Your task to perform on an android device: Go to notification settings Image 0: 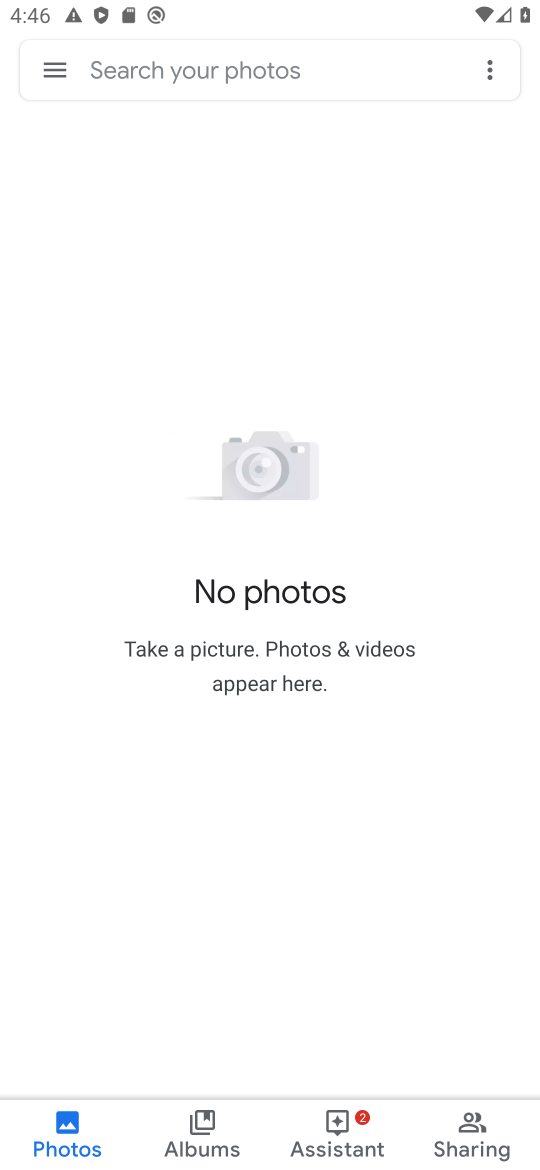
Step 0: press home button
Your task to perform on an android device: Go to notification settings Image 1: 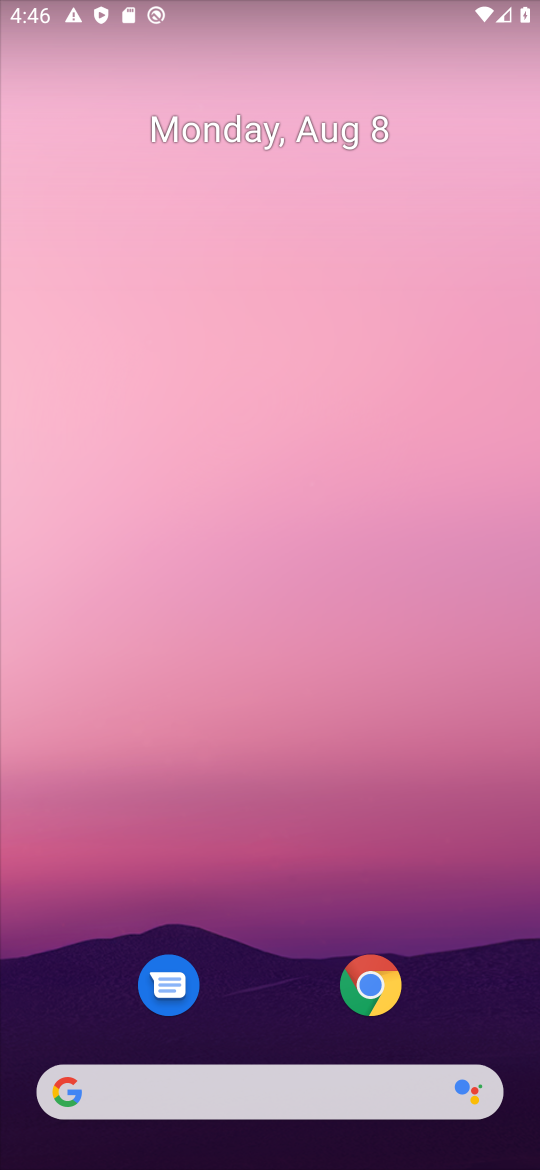
Step 1: drag from (279, 861) to (286, 163)
Your task to perform on an android device: Go to notification settings Image 2: 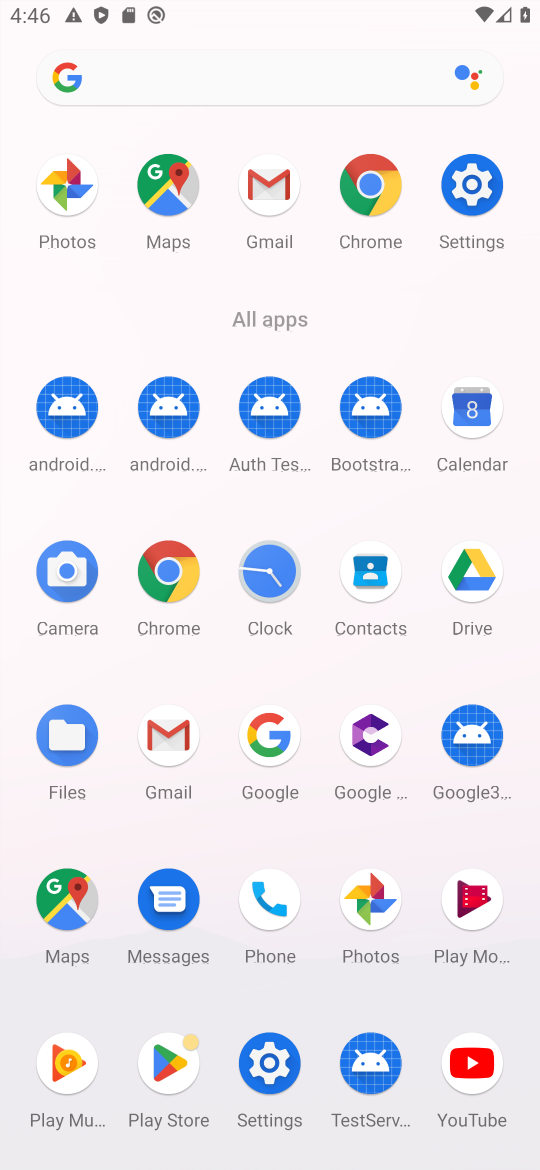
Step 2: click (482, 192)
Your task to perform on an android device: Go to notification settings Image 3: 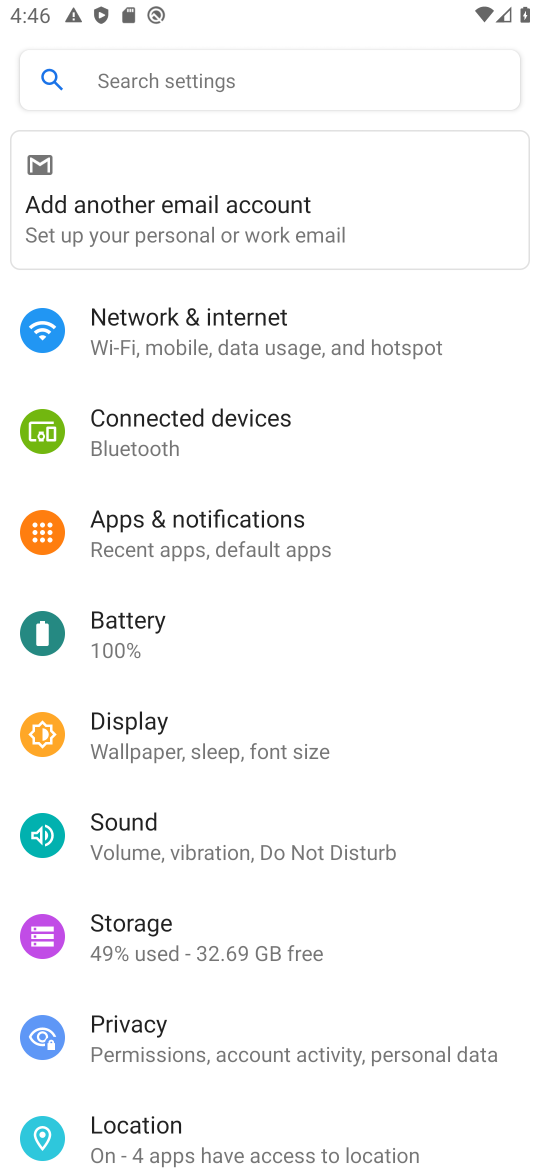
Step 3: click (213, 539)
Your task to perform on an android device: Go to notification settings Image 4: 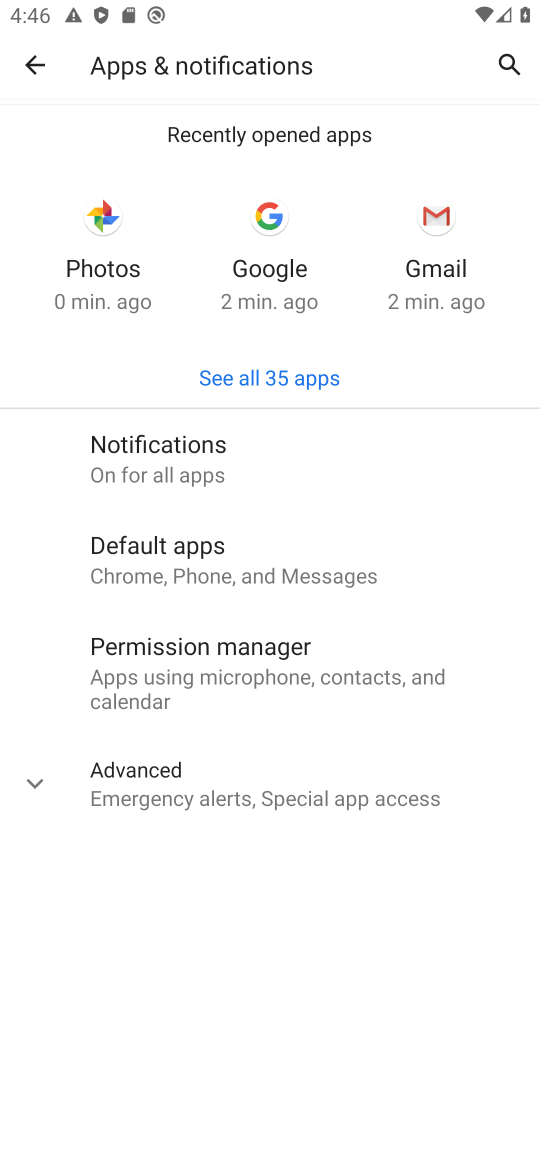
Step 4: task complete